Your task to perform on an android device: Open my contact list Image 0: 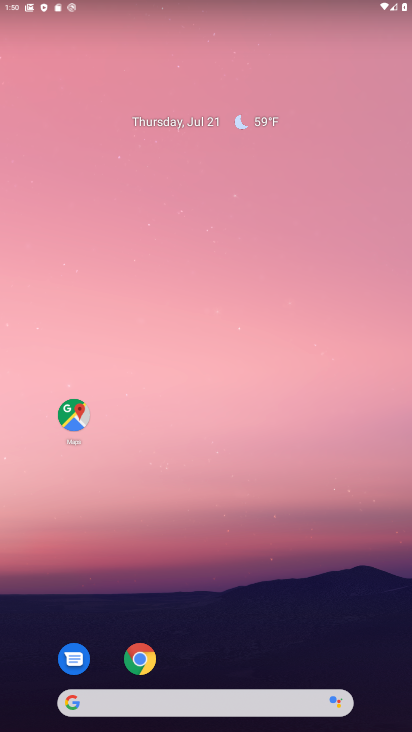
Step 0: drag from (291, 588) to (265, 136)
Your task to perform on an android device: Open my contact list Image 1: 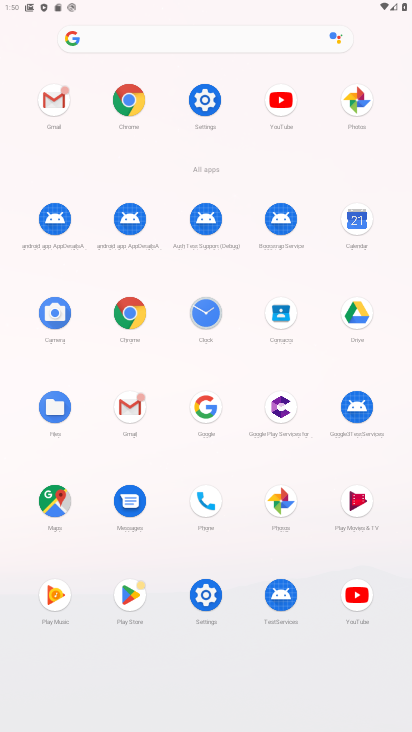
Step 1: click (280, 310)
Your task to perform on an android device: Open my contact list Image 2: 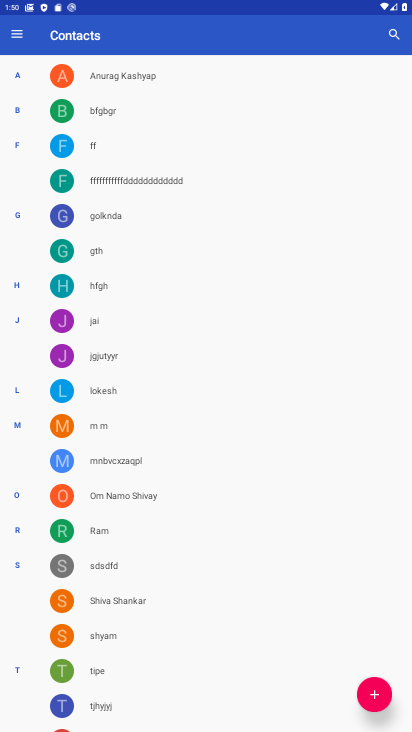
Step 2: task complete